Your task to perform on an android device: open the mobile data screen to see how much data has been used Image 0: 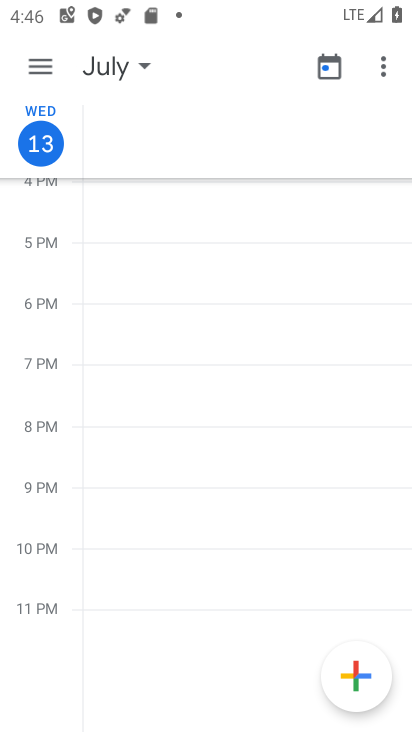
Step 0: press home button
Your task to perform on an android device: open the mobile data screen to see how much data has been used Image 1: 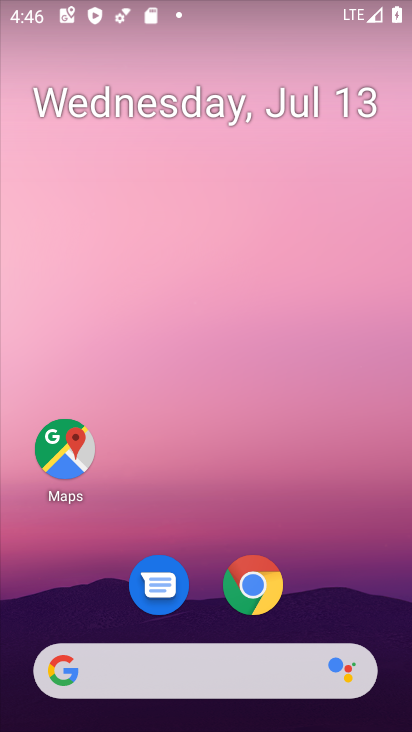
Step 1: drag from (286, 542) to (279, 42)
Your task to perform on an android device: open the mobile data screen to see how much data has been used Image 2: 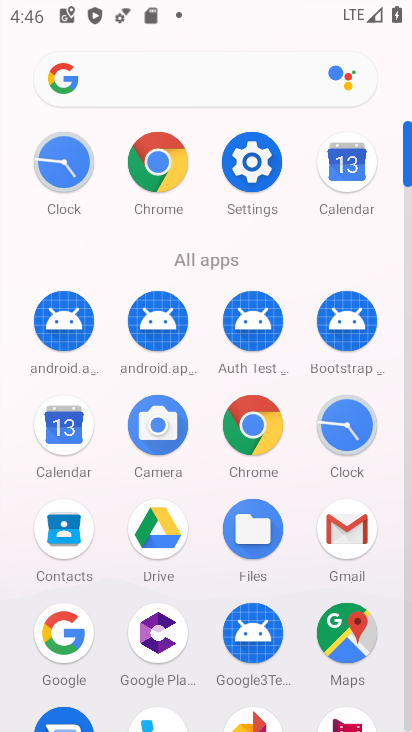
Step 2: click (253, 167)
Your task to perform on an android device: open the mobile data screen to see how much data has been used Image 3: 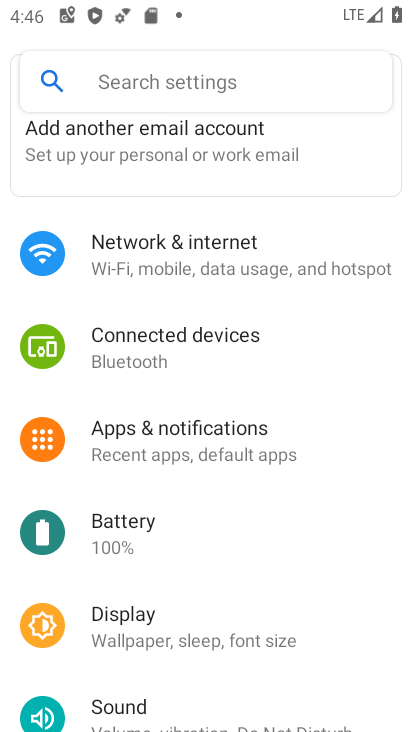
Step 3: drag from (237, 270) to (237, 408)
Your task to perform on an android device: open the mobile data screen to see how much data has been used Image 4: 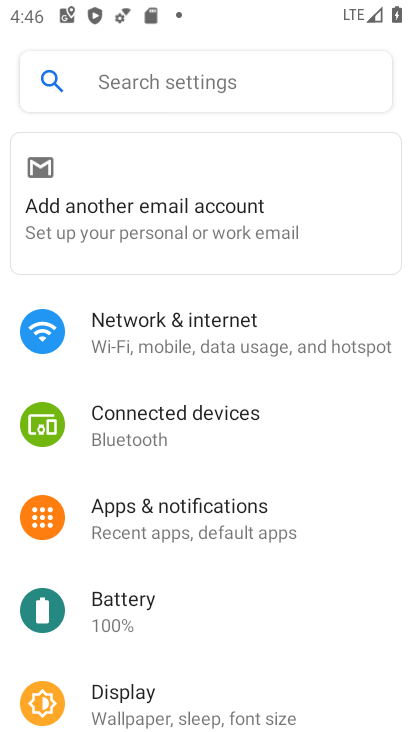
Step 4: click (249, 331)
Your task to perform on an android device: open the mobile data screen to see how much data has been used Image 5: 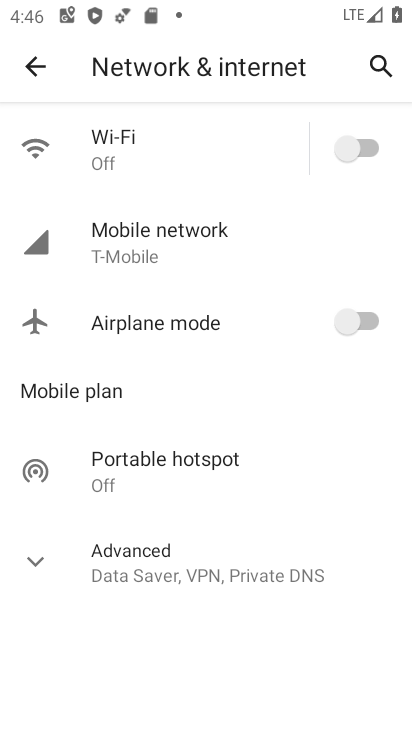
Step 5: click (203, 228)
Your task to perform on an android device: open the mobile data screen to see how much data has been used Image 6: 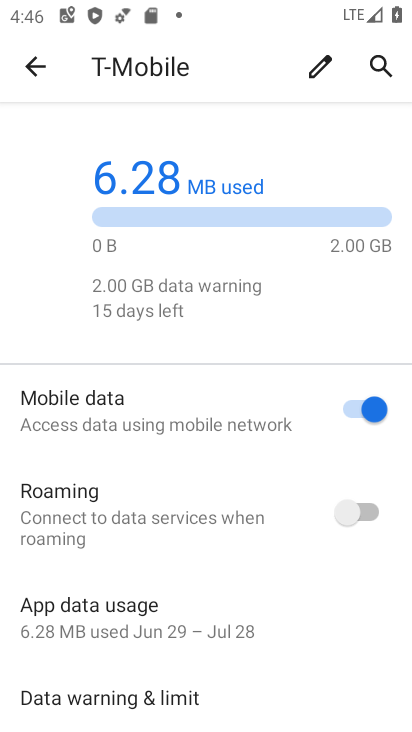
Step 6: task complete